Your task to perform on an android device: allow notifications from all sites in the chrome app Image 0: 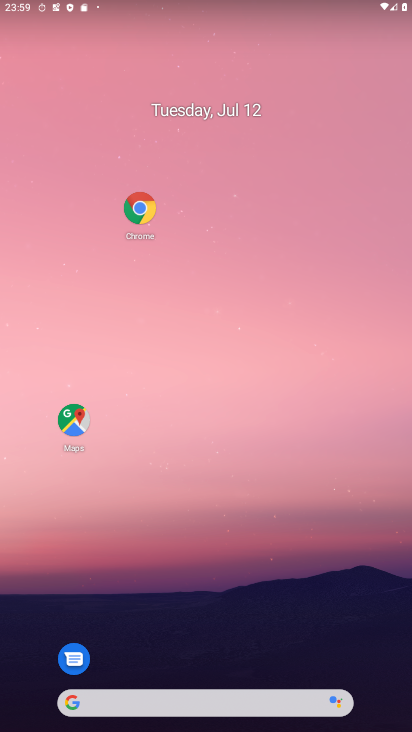
Step 0: drag from (277, 716) to (252, 117)
Your task to perform on an android device: allow notifications from all sites in the chrome app Image 1: 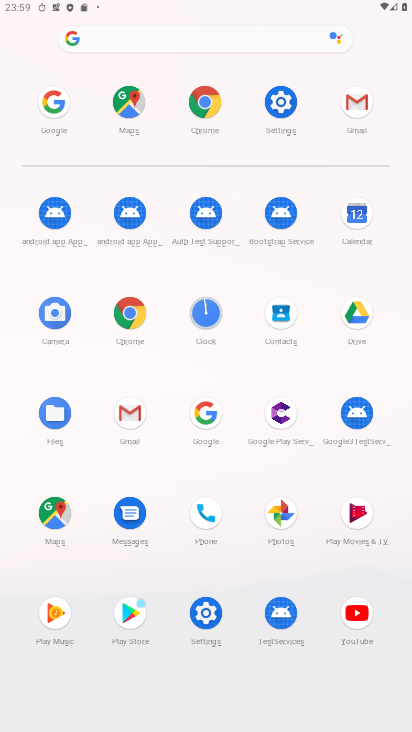
Step 1: click (136, 315)
Your task to perform on an android device: allow notifications from all sites in the chrome app Image 2: 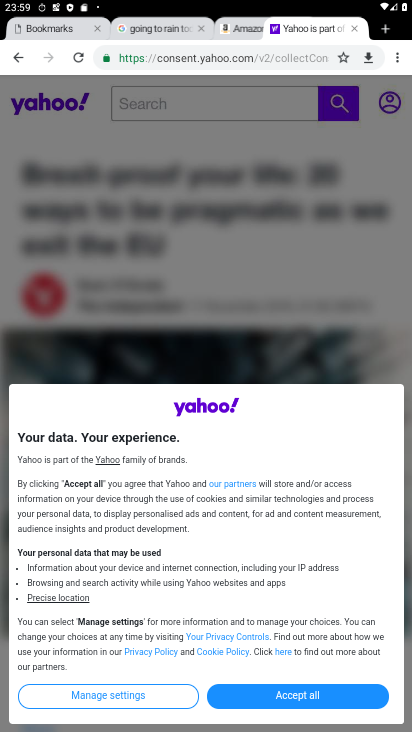
Step 2: drag from (396, 46) to (284, 383)
Your task to perform on an android device: allow notifications from all sites in the chrome app Image 3: 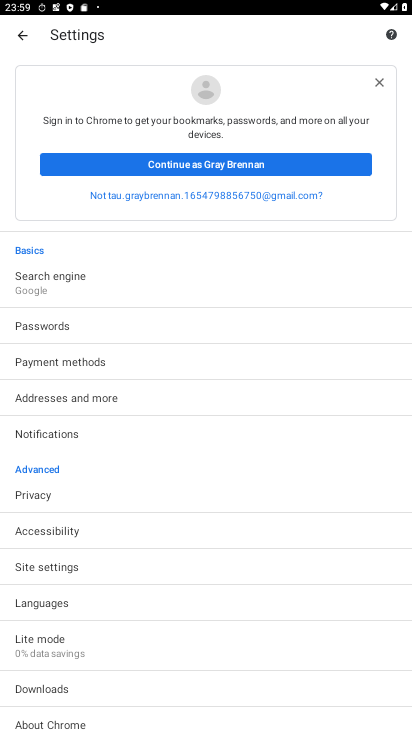
Step 3: click (76, 573)
Your task to perform on an android device: allow notifications from all sites in the chrome app Image 4: 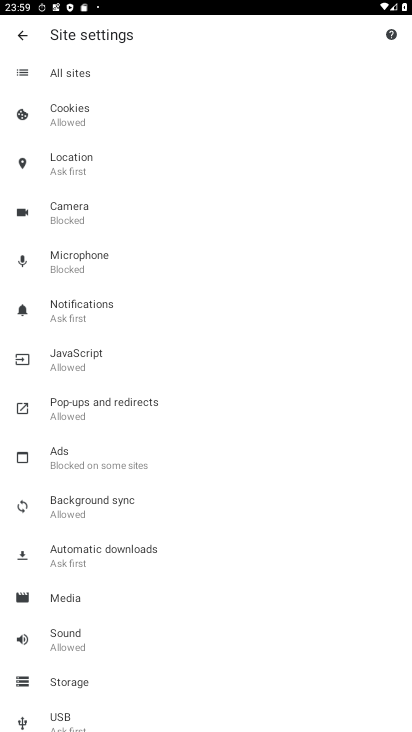
Step 4: click (81, 309)
Your task to perform on an android device: allow notifications from all sites in the chrome app Image 5: 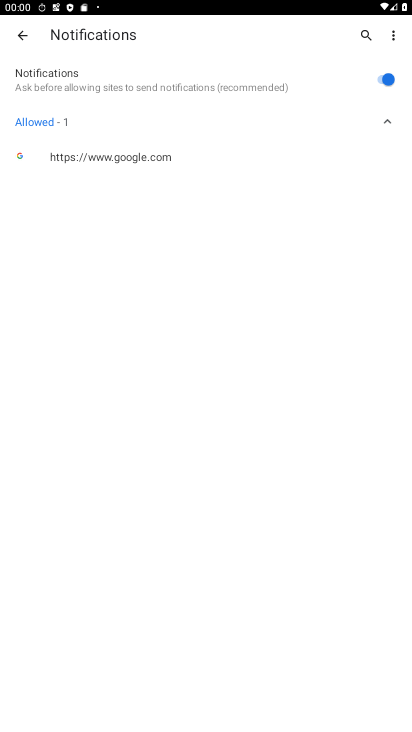
Step 5: task complete